Your task to perform on an android device: toggle improve location accuracy Image 0: 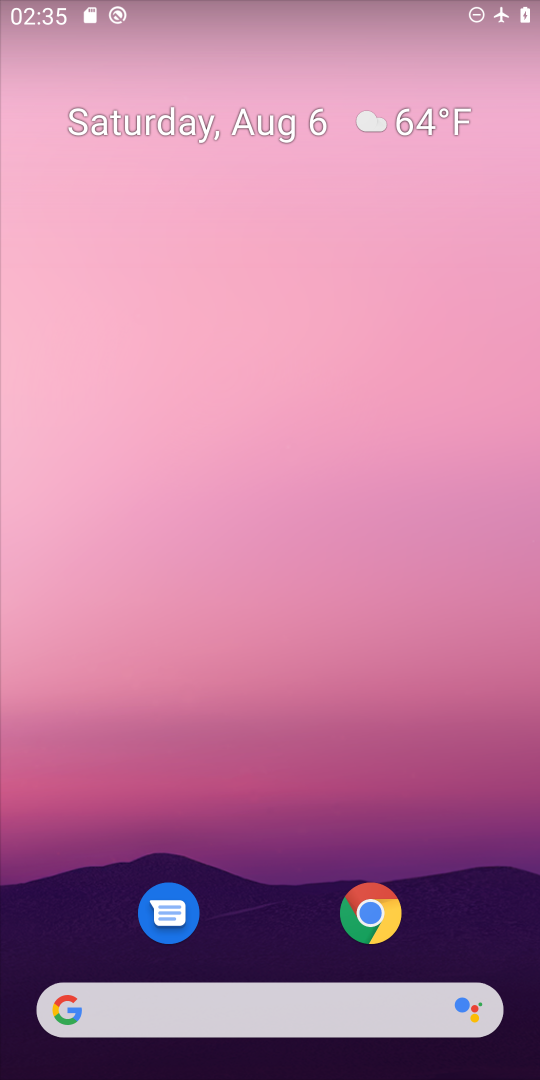
Step 0: press home button
Your task to perform on an android device: toggle improve location accuracy Image 1: 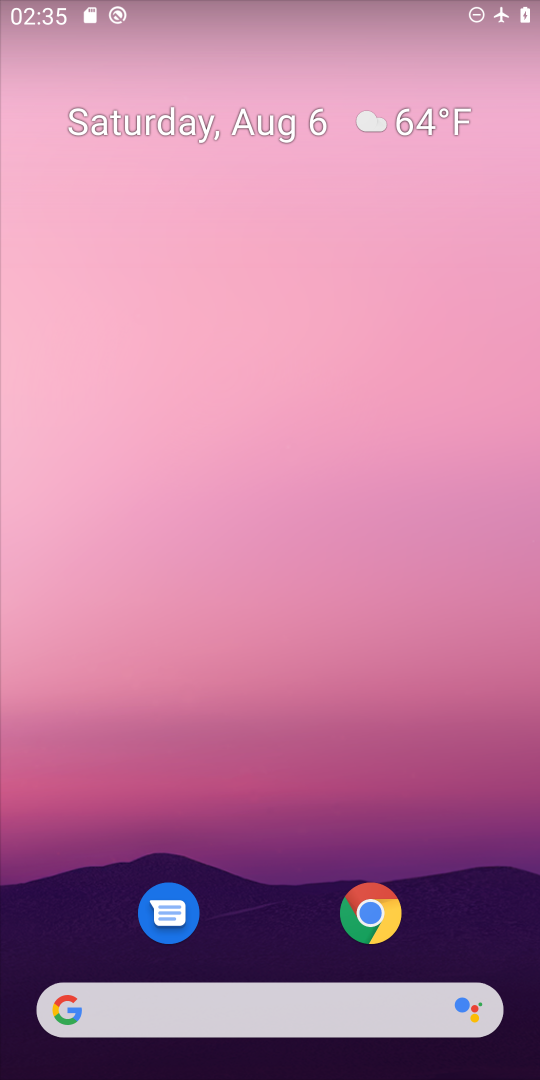
Step 1: drag from (471, 922) to (453, 293)
Your task to perform on an android device: toggle improve location accuracy Image 2: 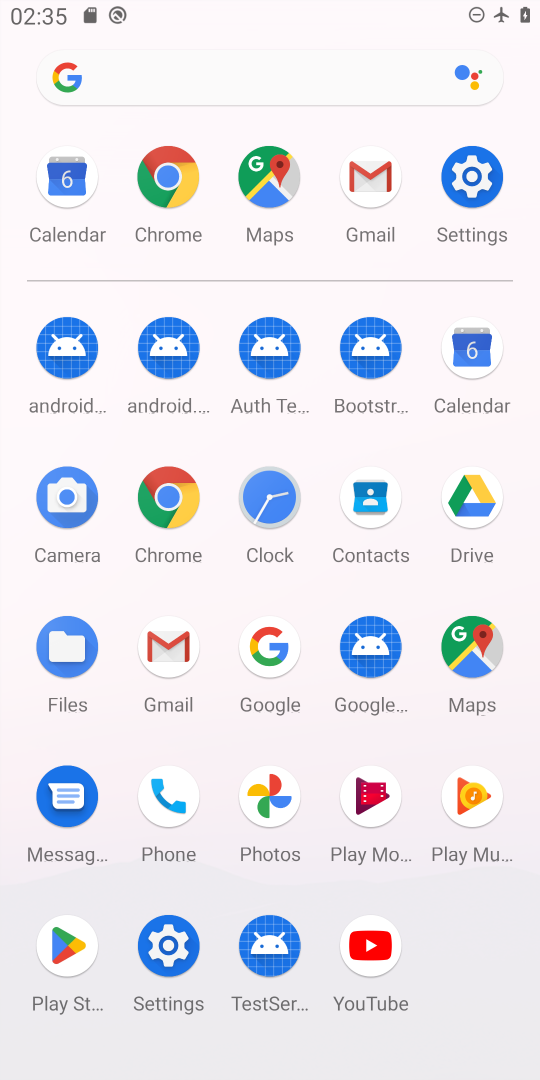
Step 2: click (472, 179)
Your task to perform on an android device: toggle improve location accuracy Image 3: 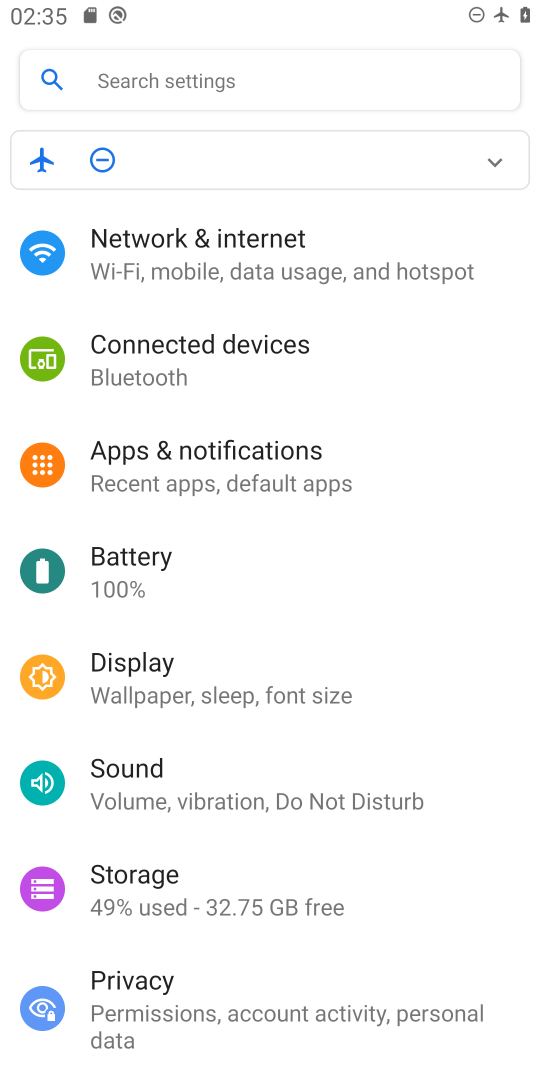
Step 3: drag from (446, 627) to (412, 433)
Your task to perform on an android device: toggle improve location accuracy Image 4: 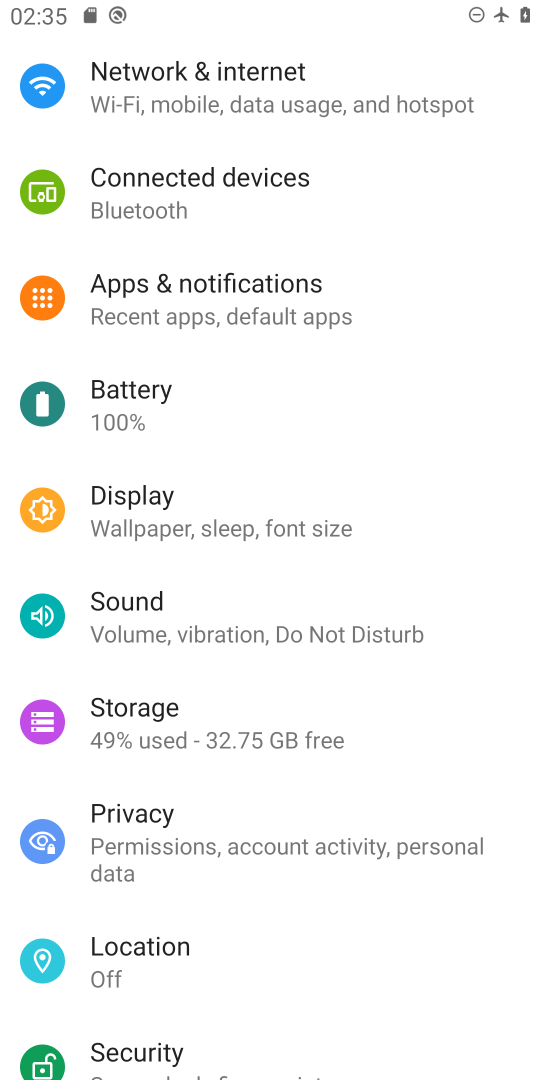
Step 4: drag from (450, 711) to (442, 564)
Your task to perform on an android device: toggle improve location accuracy Image 5: 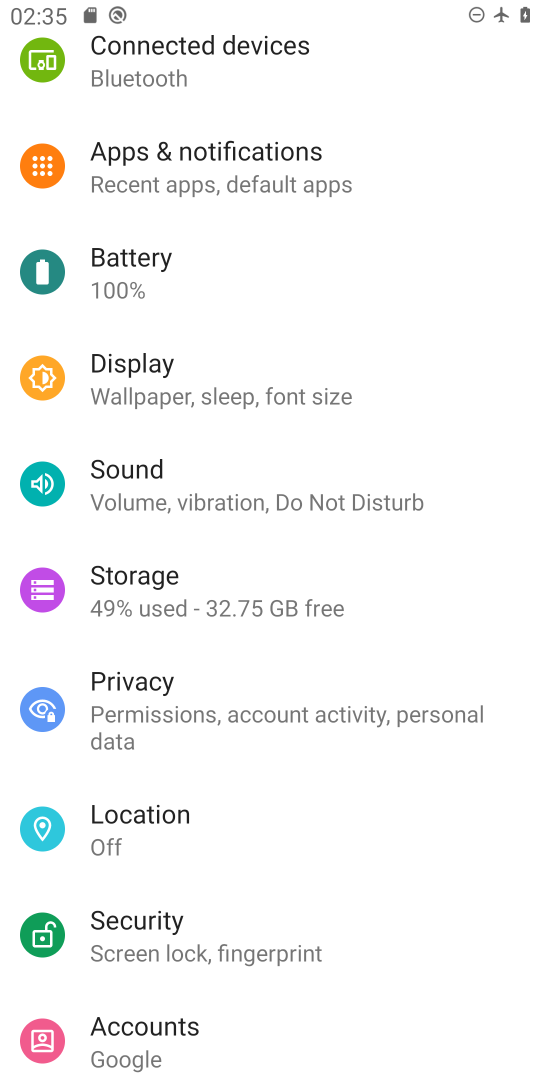
Step 5: drag from (455, 774) to (435, 634)
Your task to perform on an android device: toggle improve location accuracy Image 6: 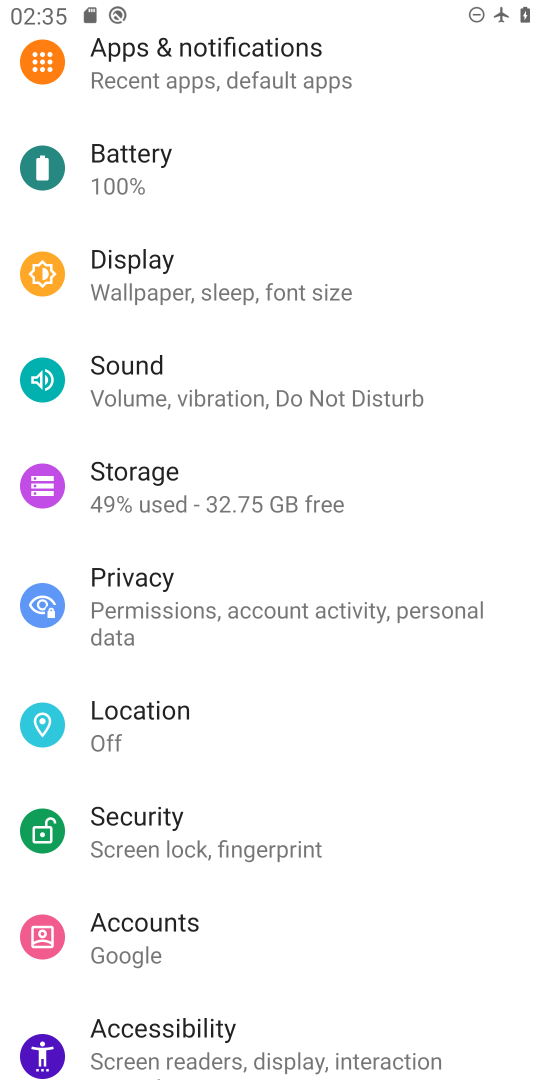
Step 6: click (413, 737)
Your task to perform on an android device: toggle improve location accuracy Image 7: 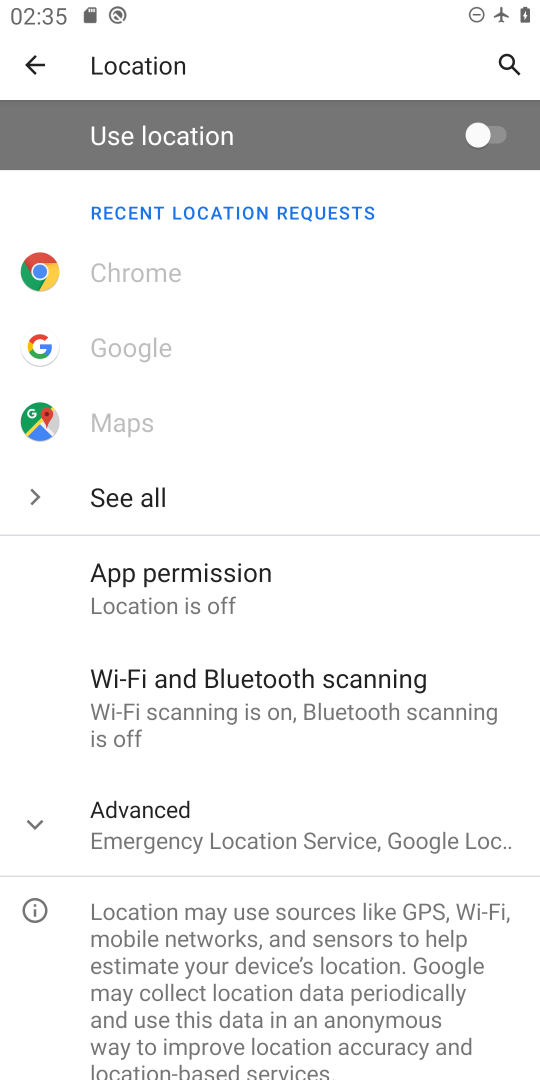
Step 7: click (404, 813)
Your task to perform on an android device: toggle improve location accuracy Image 8: 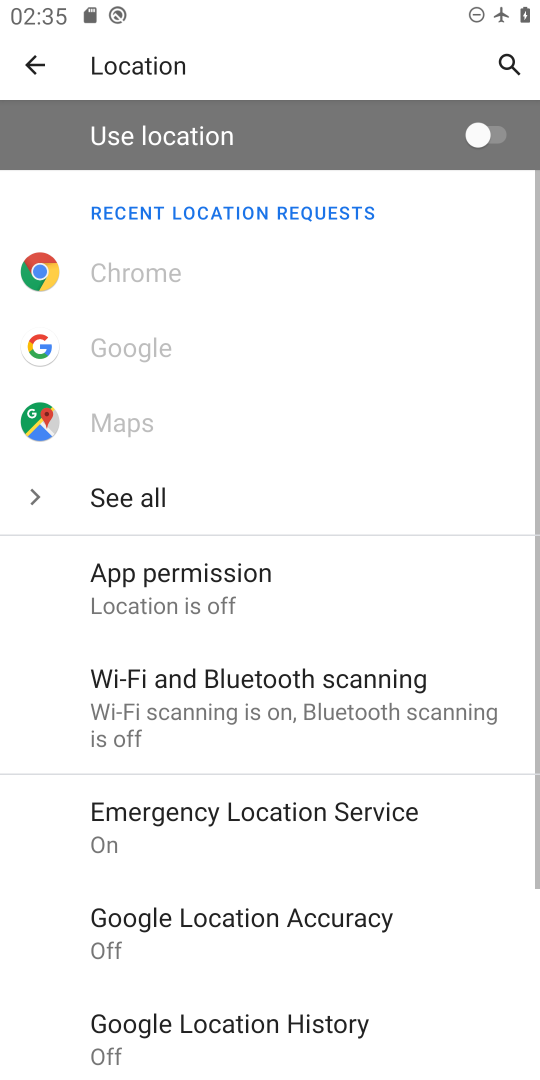
Step 8: drag from (404, 813) to (388, 689)
Your task to perform on an android device: toggle improve location accuracy Image 9: 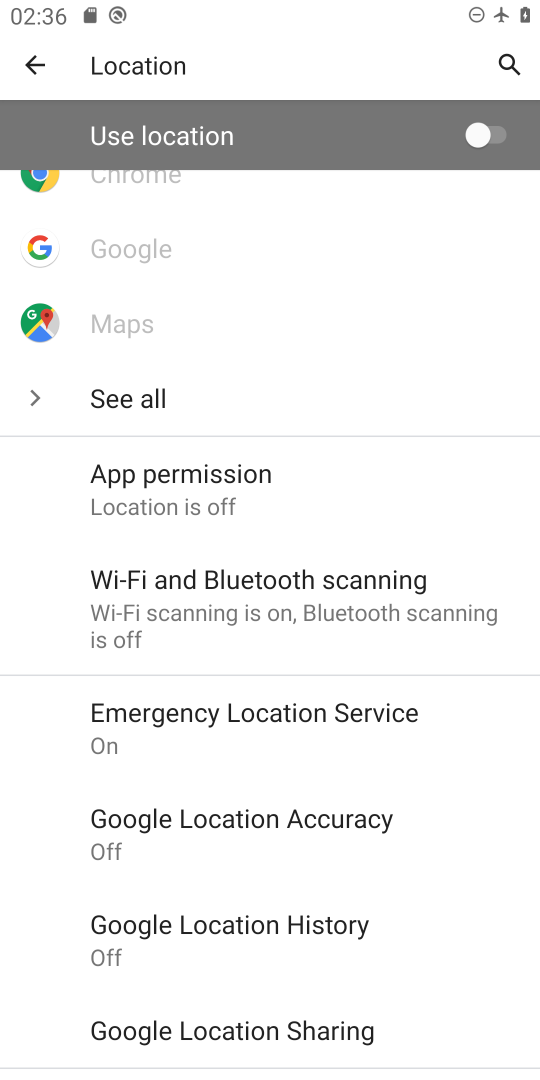
Step 9: drag from (426, 830) to (426, 672)
Your task to perform on an android device: toggle improve location accuracy Image 10: 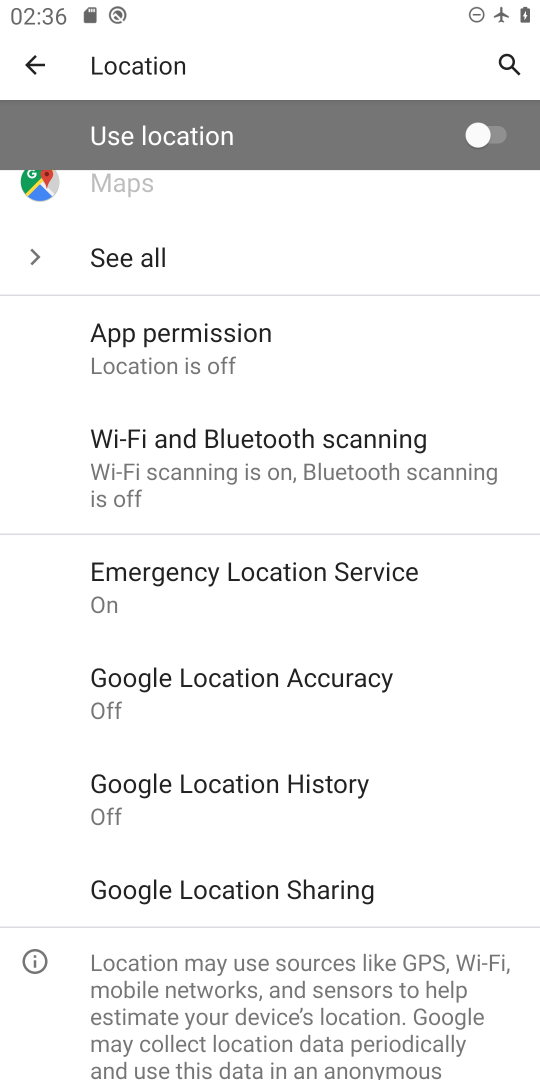
Step 10: click (427, 670)
Your task to perform on an android device: toggle improve location accuracy Image 11: 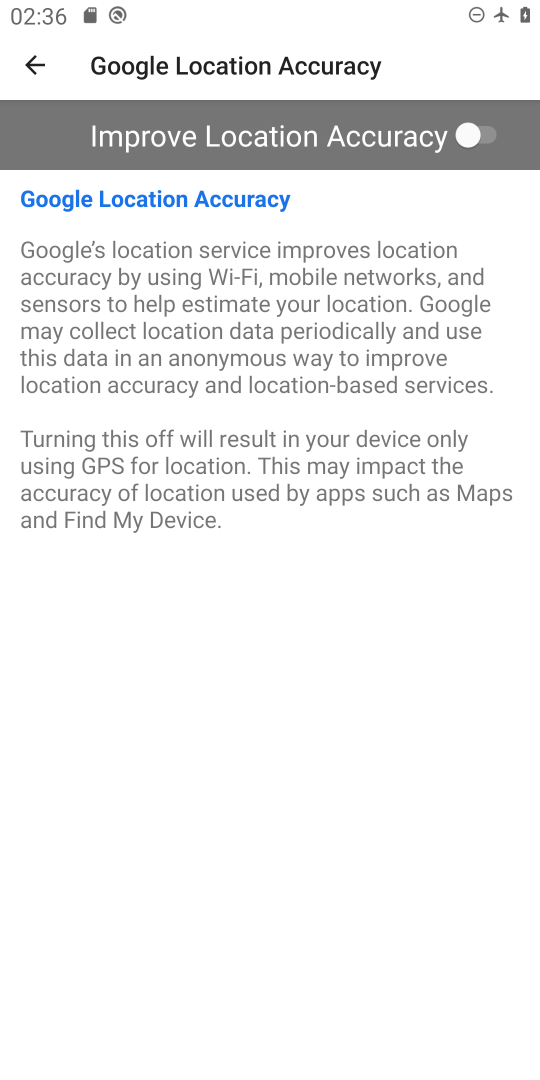
Step 11: click (466, 142)
Your task to perform on an android device: toggle improve location accuracy Image 12: 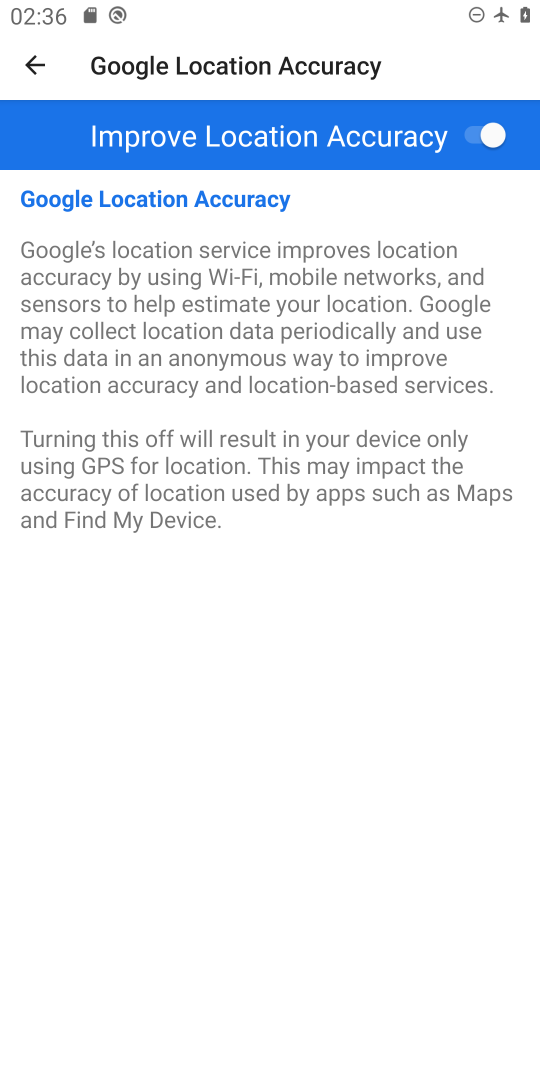
Step 12: task complete